Your task to perform on an android device: check battery use Image 0: 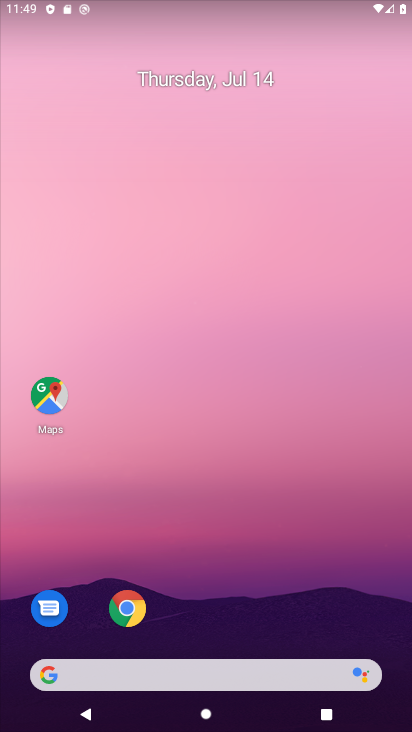
Step 0: drag from (166, 635) to (187, 212)
Your task to perform on an android device: check battery use Image 1: 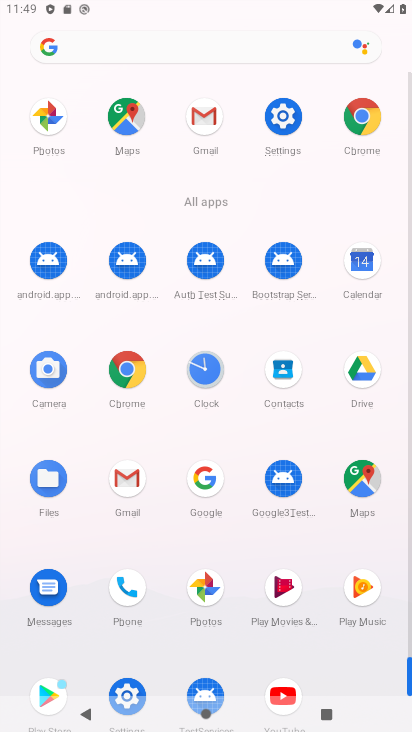
Step 1: click (280, 120)
Your task to perform on an android device: check battery use Image 2: 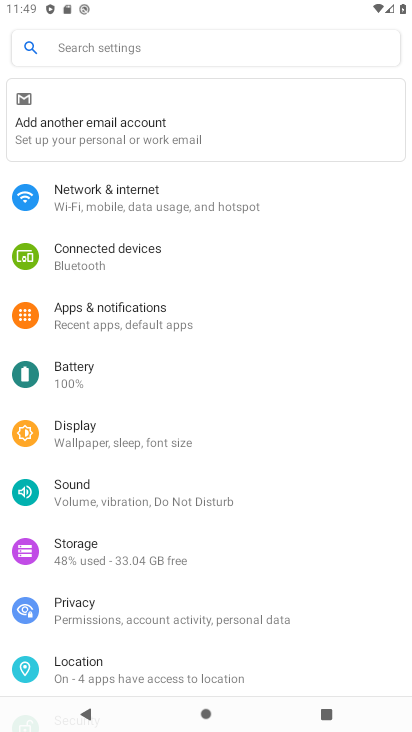
Step 2: click (60, 365)
Your task to perform on an android device: check battery use Image 3: 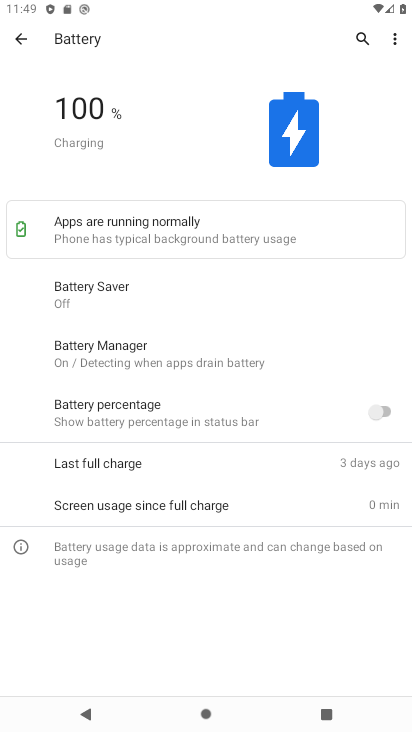
Step 3: task complete